Your task to perform on an android device: toggle pop-ups in chrome Image 0: 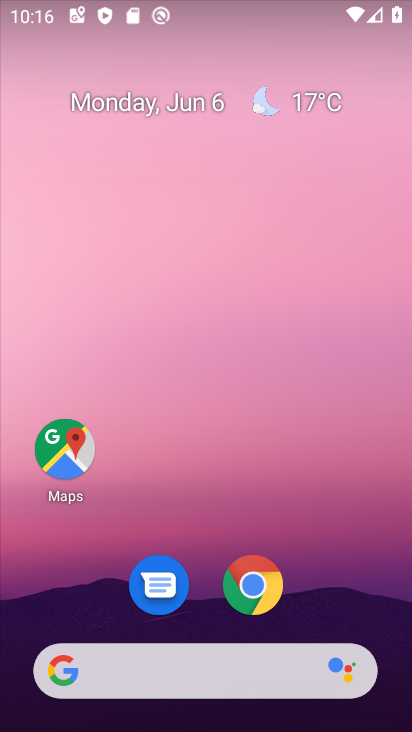
Step 0: click (265, 586)
Your task to perform on an android device: toggle pop-ups in chrome Image 1: 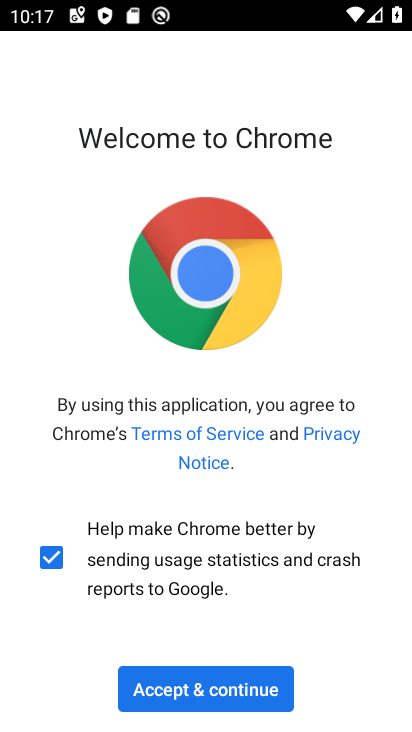
Step 1: click (267, 685)
Your task to perform on an android device: toggle pop-ups in chrome Image 2: 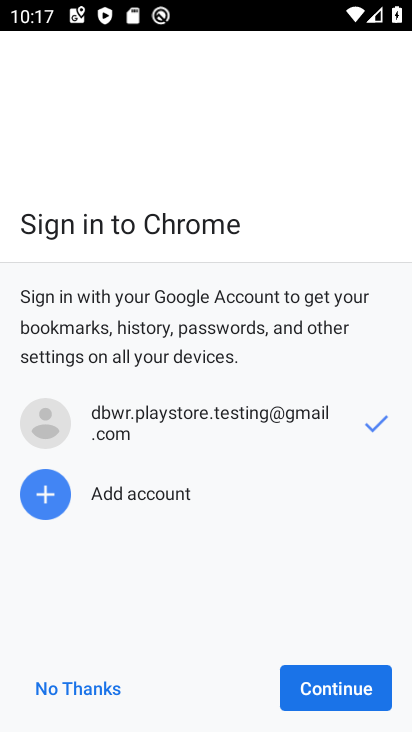
Step 2: click (309, 677)
Your task to perform on an android device: toggle pop-ups in chrome Image 3: 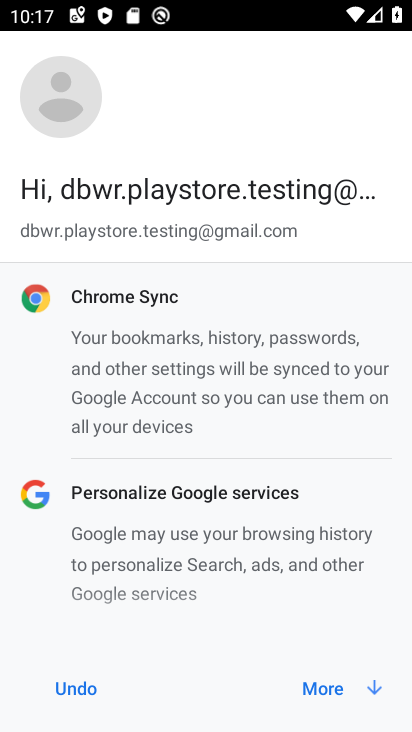
Step 3: click (309, 680)
Your task to perform on an android device: toggle pop-ups in chrome Image 4: 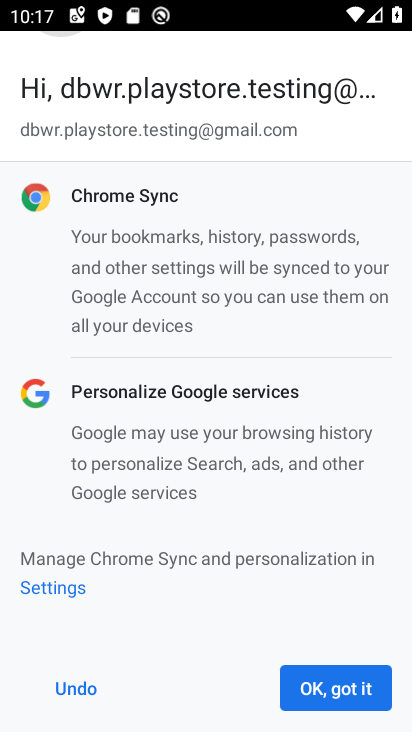
Step 4: click (309, 678)
Your task to perform on an android device: toggle pop-ups in chrome Image 5: 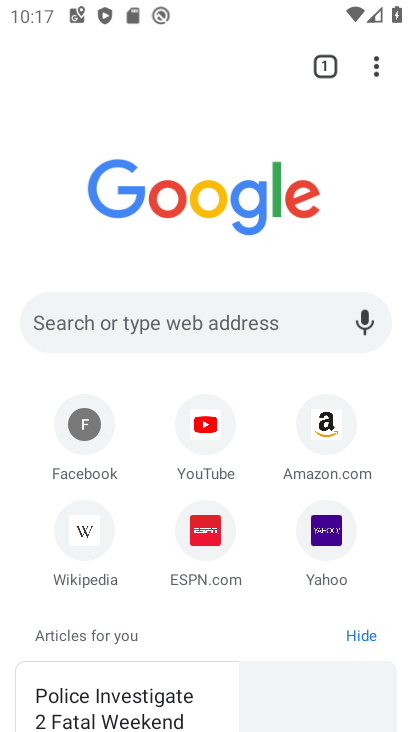
Step 5: click (375, 65)
Your task to perform on an android device: toggle pop-ups in chrome Image 6: 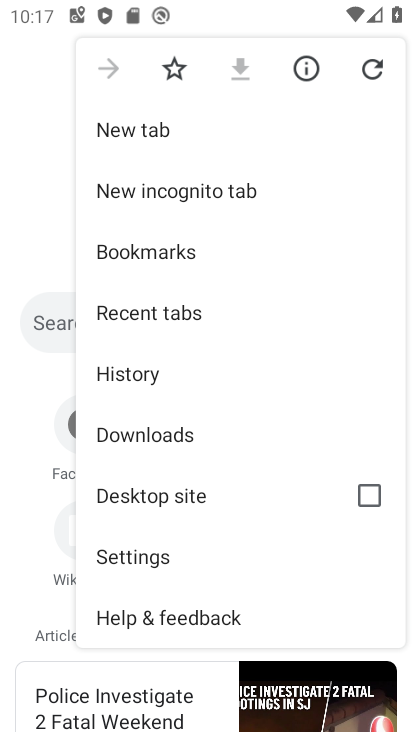
Step 6: click (171, 551)
Your task to perform on an android device: toggle pop-ups in chrome Image 7: 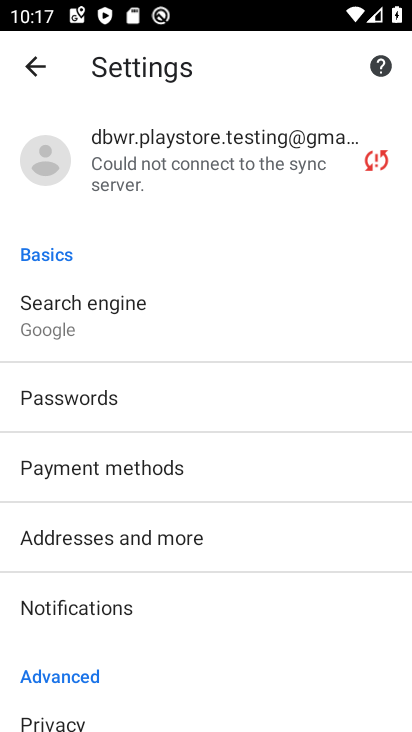
Step 7: drag from (232, 545) to (206, 182)
Your task to perform on an android device: toggle pop-ups in chrome Image 8: 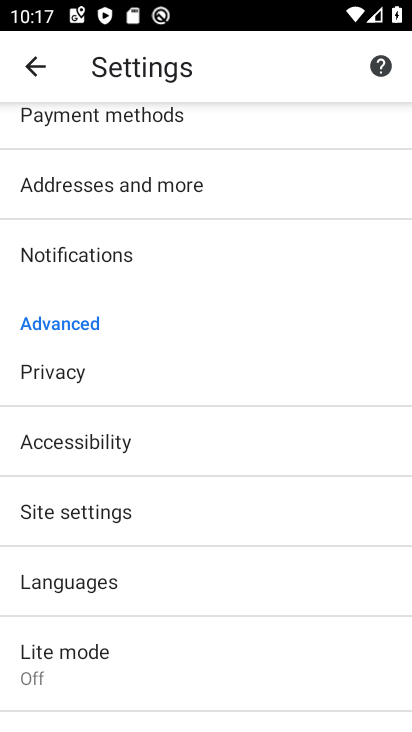
Step 8: click (191, 513)
Your task to perform on an android device: toggle pop-ups in chrome Image 9: 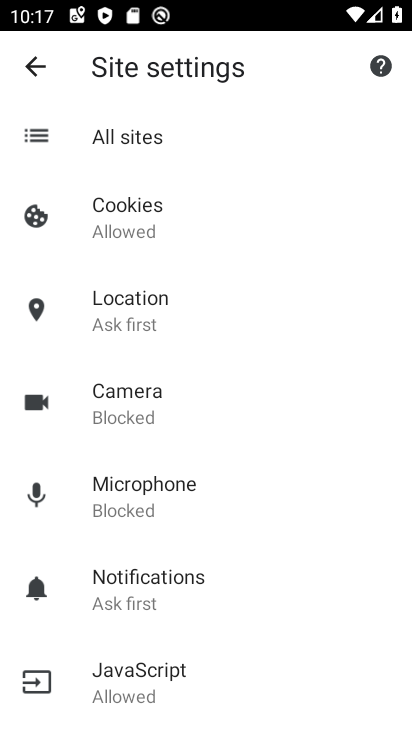
Step 9: drag from (256, 541) to (263, 184)
Your task to perform on an android device: toggle pop-ups in chrome Image 10: 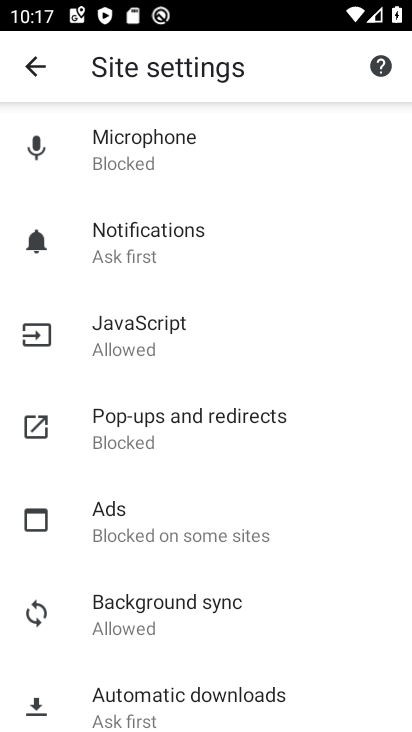
Step 10: click (222, 418)
Your task to perform on an android device: toggle pop-ups in chrome Image 11: 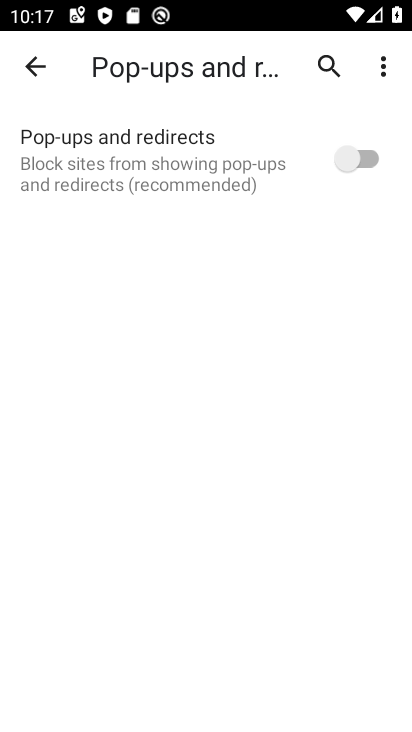
Step 11: click (355, 155)
Your task to perform on an android device: toggle pop-ups in chrome Image 12: 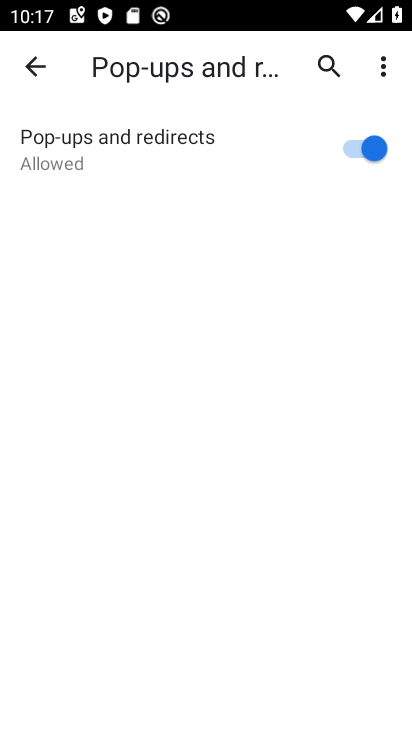
Step 12: task complete